Your task to perform on an android device: Do I have any events tomorrow? Image 0: 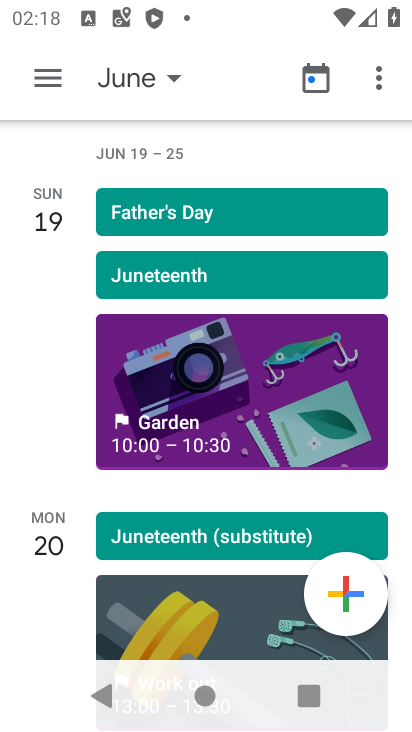
Step 0: press home button
Your task to perform on an android device: Do I have any events tomorrow? Image 1: 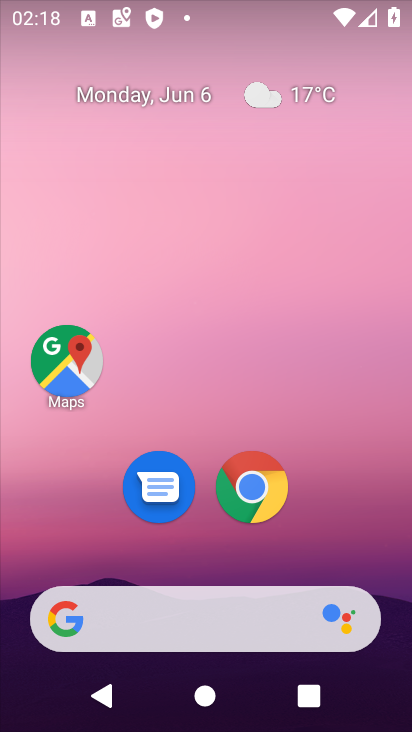
Step 1: drag from (395, 621) to (351, 63)
Your task to perform on an android device: Do I have any events tomorrow? Image 2: 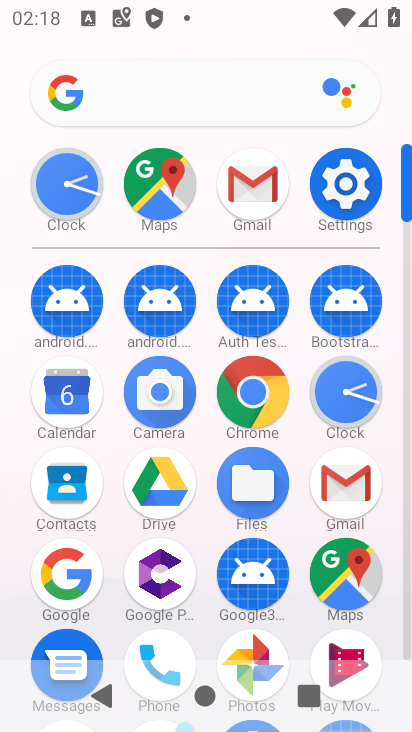
Step 2: click (65, 390)
Your task to perform on an android device: Do I have any events tomorrow? Image 3: 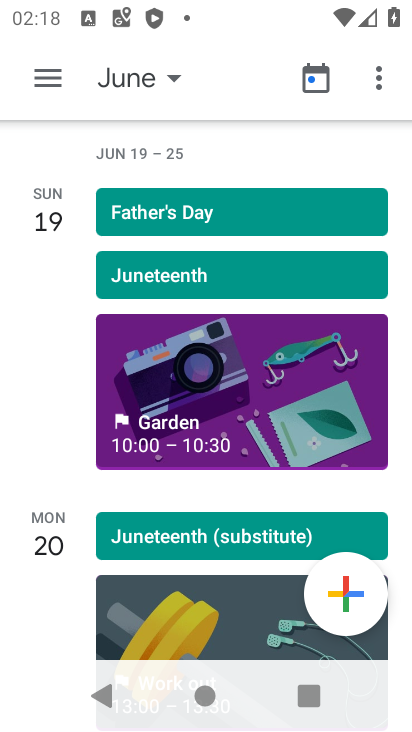
Step 3: click (51, 74)
Your task to perform on an android device: Do I have any events tomorrow? Image 4: 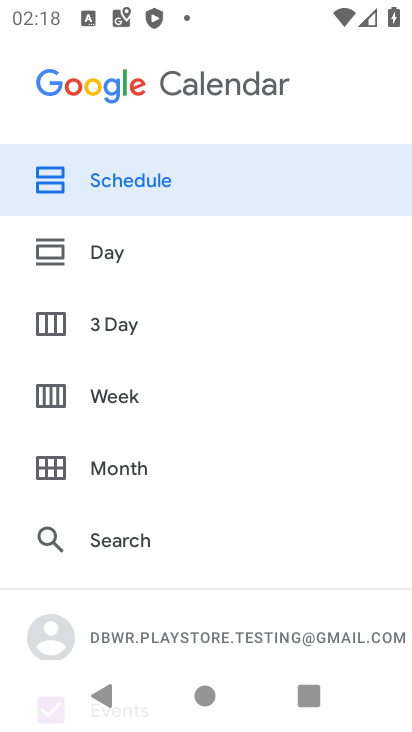
Step 4: click (113, 253)
Your task to perform on an android device: Do I have any events tomorrow? Image 5: 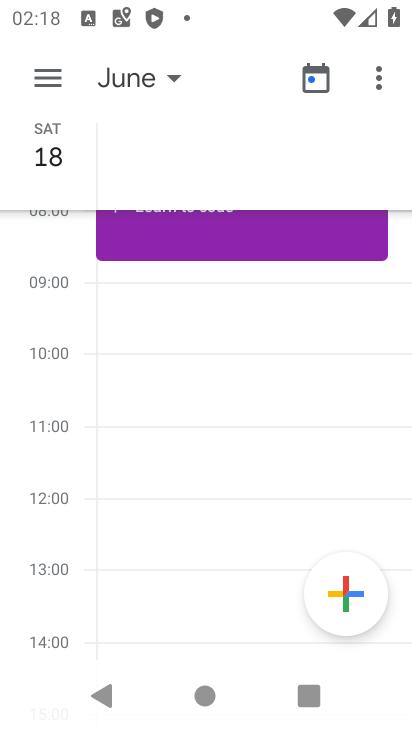
Step 5: click (175, 83)
Your task to perform on an android device: Do I have any events tomorrow? Image 6: 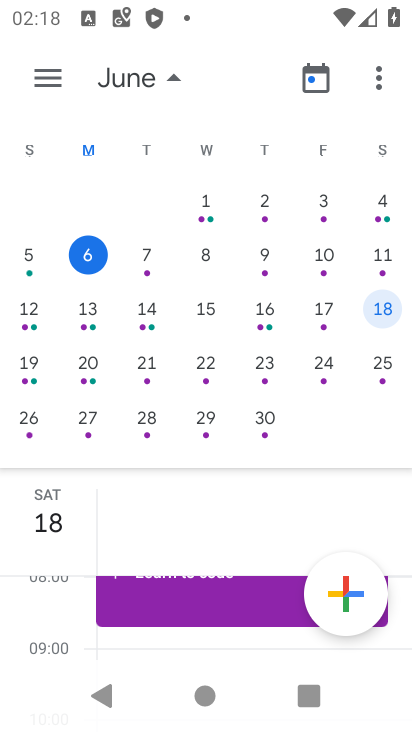
Step 6: click (149, 257)
Your task to perform on an android device: Do I have any events tomorrow? Image 7: 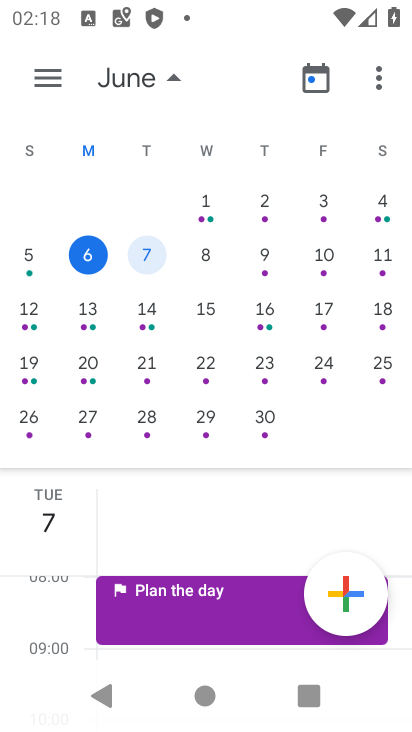
Step 7: task complete